Your task to perform on an android device: Go to settings Image 0: 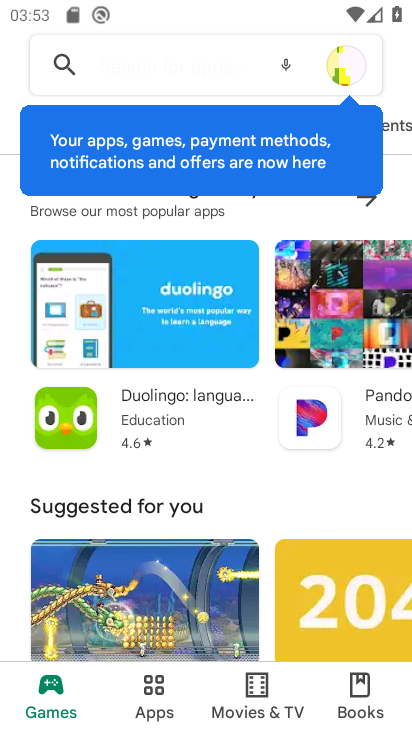
Step 0: press home button
Your task to perform on an android device: Go to settings Image 1: 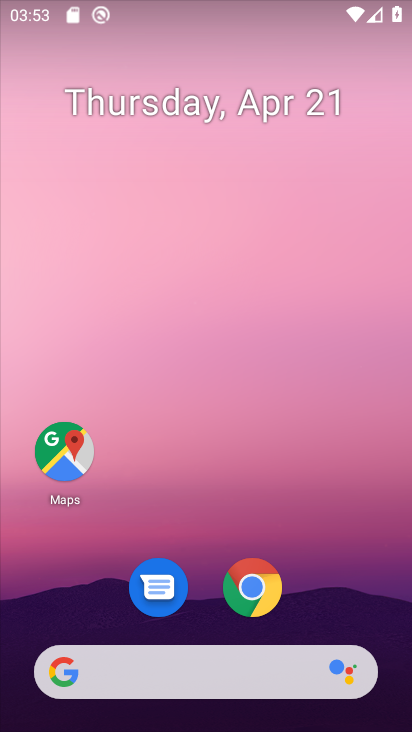
Step 1: drag from (337, 588) to (343, 166)
Your task to perform on an android device: Go to settings Image 2: 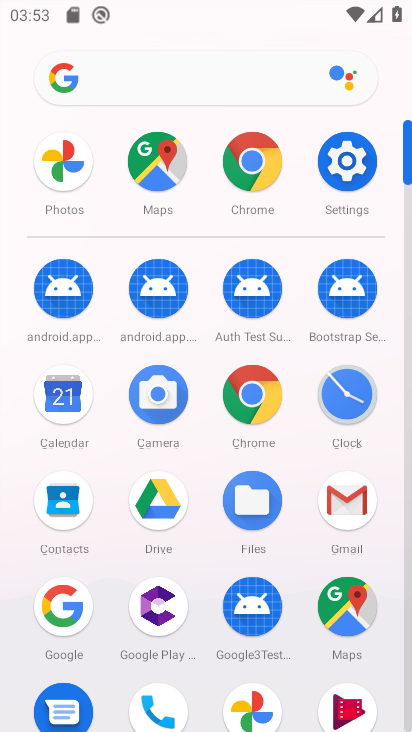
Step 2: click (348, 170)
Your task to perform on an android device: Go to settings Image 3: 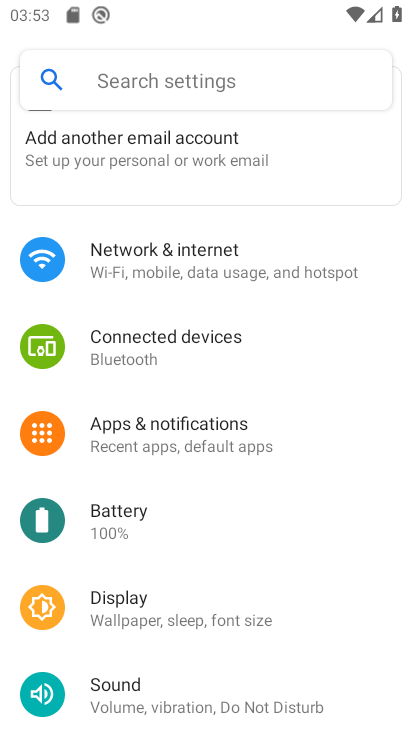
Step 3: task complete